Your task to perform on an android device: Empty the shopping cart on target. Add "logitech g933" to the cart on target, then select checkout. Image 0: 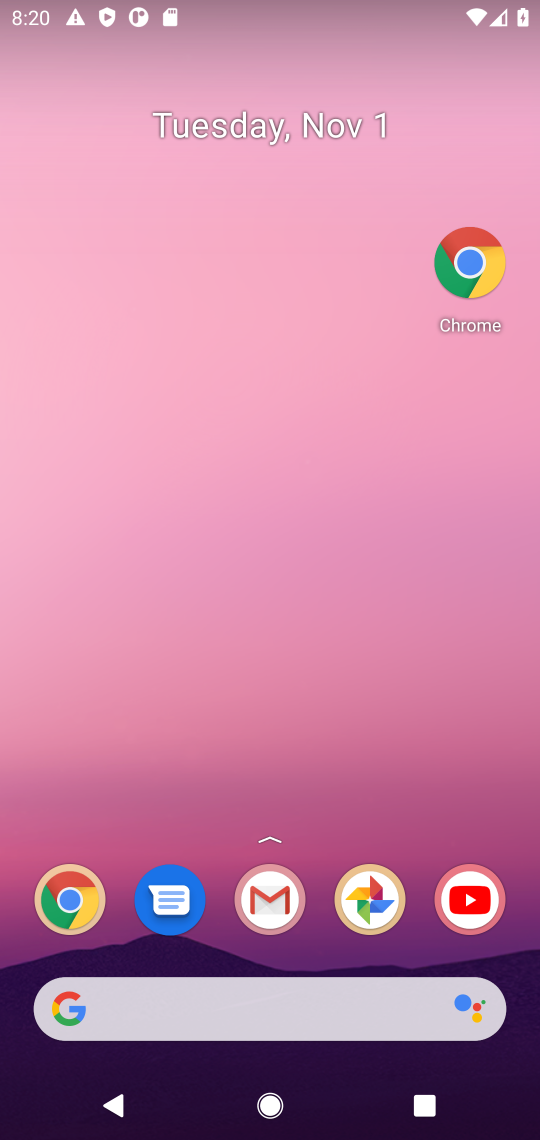
Step 0: drag from (315, 938) to (326, 123)
Your task to perform on an android device: Empty the shopping cart on target. Add "logitech g933" to the cart on target, then select checkout. Image 1: 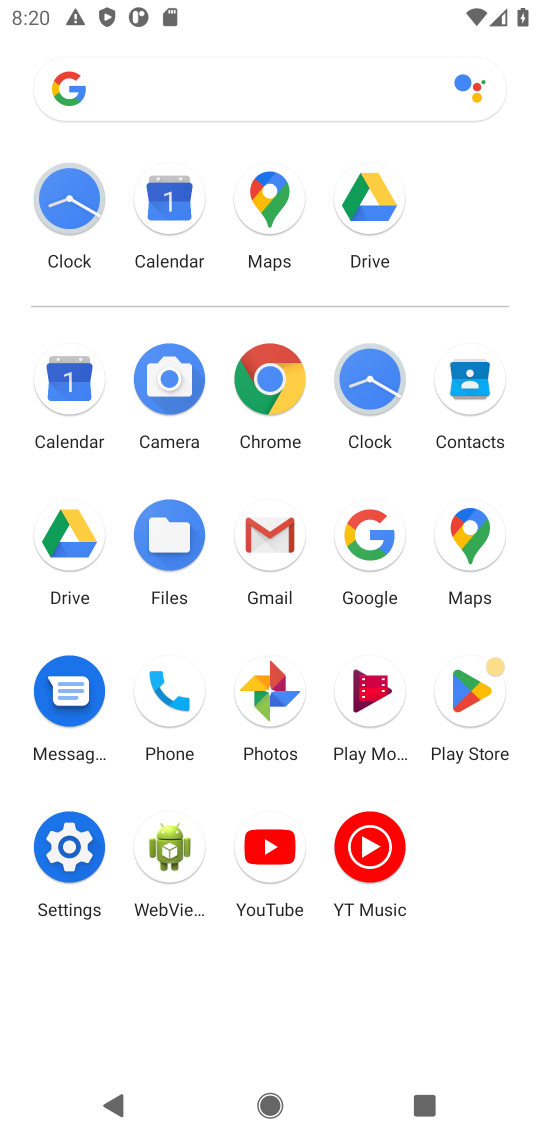
Step 1: click (268, 370)
Your task to perform on an android device: Empty the shopping cart on target. Add "logitech g933" to the cart on target, then select checkout. Image 2: 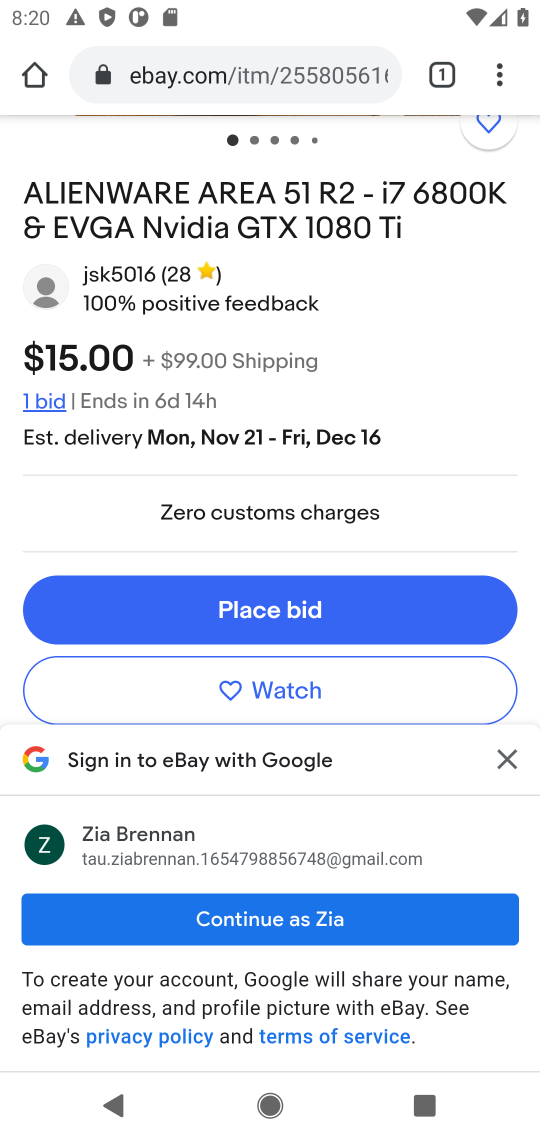
Step 2: click (335, 62)
Your task to perform on an android device: Empty the shopping cart on target. Add "logitech g933" to the cart on target, then select checkout. Image 3: 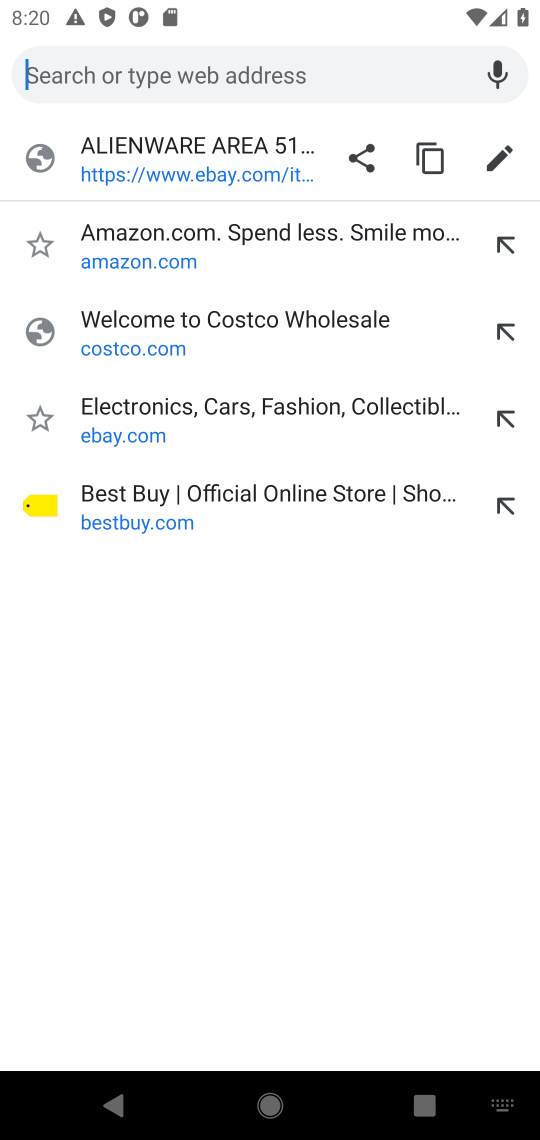
Step 3: type "target.com"
Your task to perform on an android device: Empty the shopping cart on target. Add "logitech g933" to the cart on target, then select checkout. Image 4: 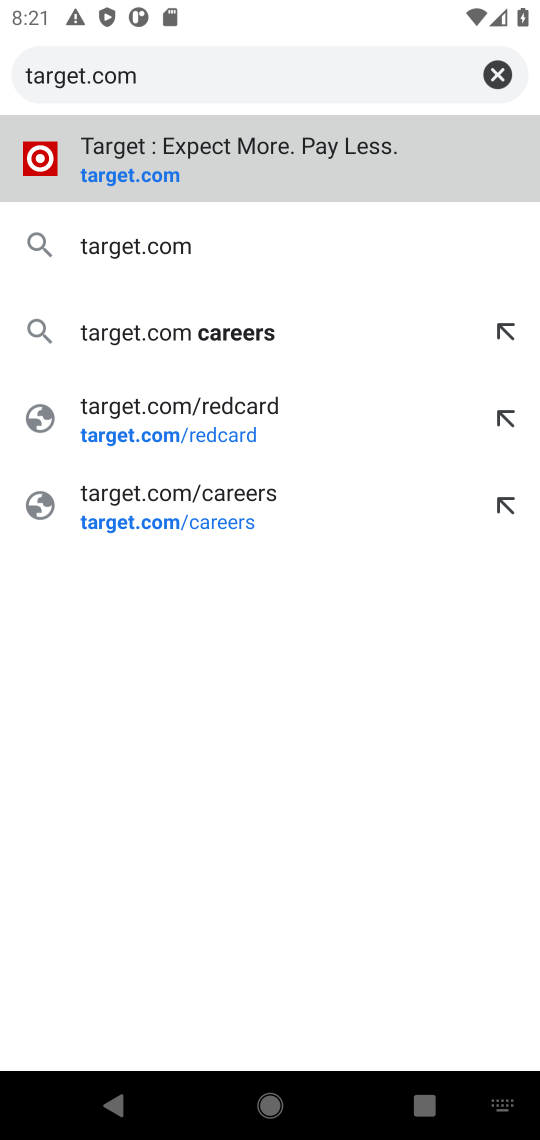
Step 4: press enter
Your task to perform on an android device: Empty the shopping cart on target. Add "logitech g933" to the cart on target, then select checkout. Image 5: 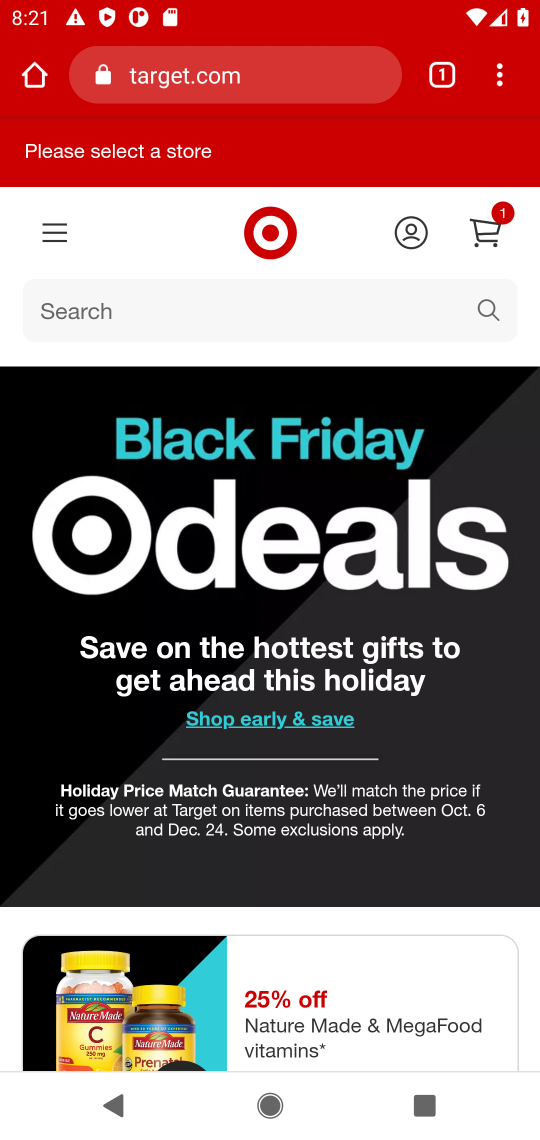
Step 5: click (497, 229)
Your task to perform on an android device: Empty the shopping cart on target. Add "logitech g933" to the cart on target, then select checkout. Image 6: 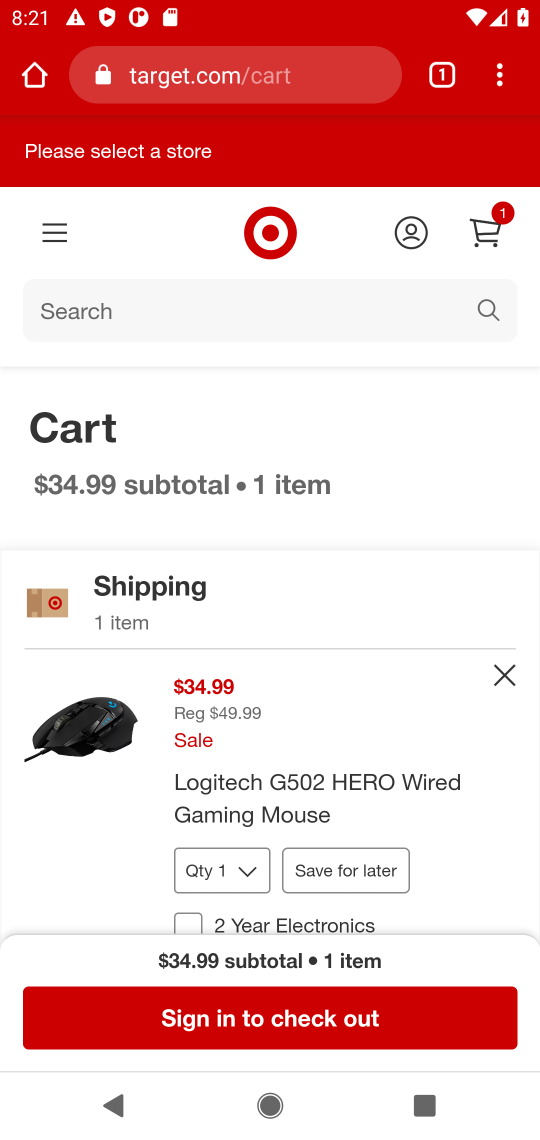
Step 6: drag from (428, 885) to (438, 379)
Your task to perform on an android device: Empty the shopping cart on target. Add "logitech g933" to the cart on target, then select checkout. Image 7: 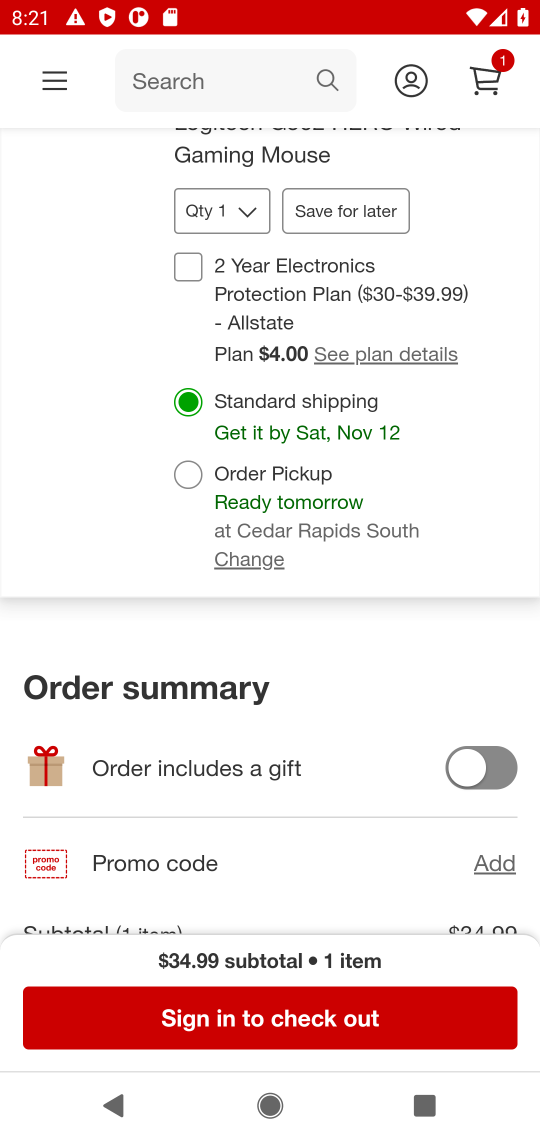
Step 7: drag from (413, 428) to (282, 860)
Your task to perform on an android device: Empty the shopping cart on target. Add "logitech g933" to the cart on target, then select checkout. Image 8: 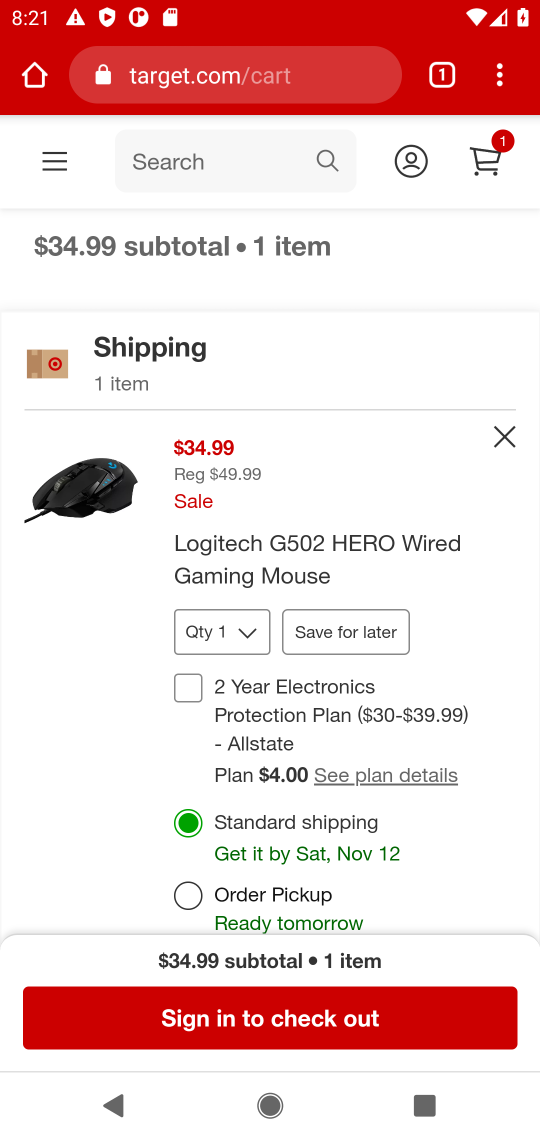
Step 8: drag from (342, 837) to (364, 717)
Your task to perform on an android device: Empty the shopping cart on target. Add "logitech g933" to the cart on target, then select checkout. Image 9: 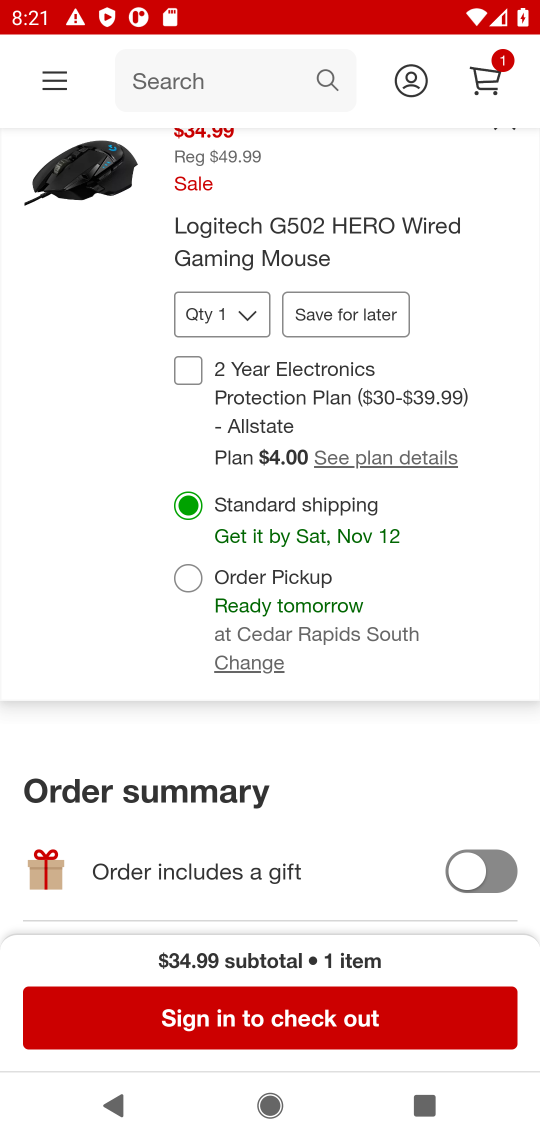
Step 9: click (213, 320)
Your task to perform on an android device: Empty the shopping cart on target. Add "logitech g933" to the cart on target, then select checkout. Image 10: 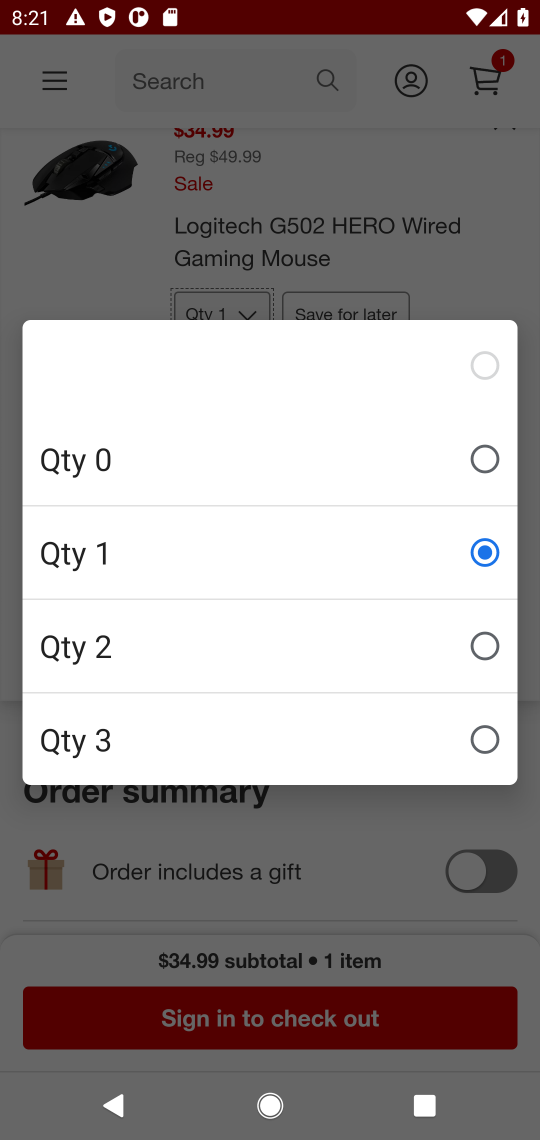
Step 10: click (192, 451)
Your task to perform on an android device: Empty the shopping cart on target. Add "logitech g933" to the cart on target, then select checkout. Image 11: 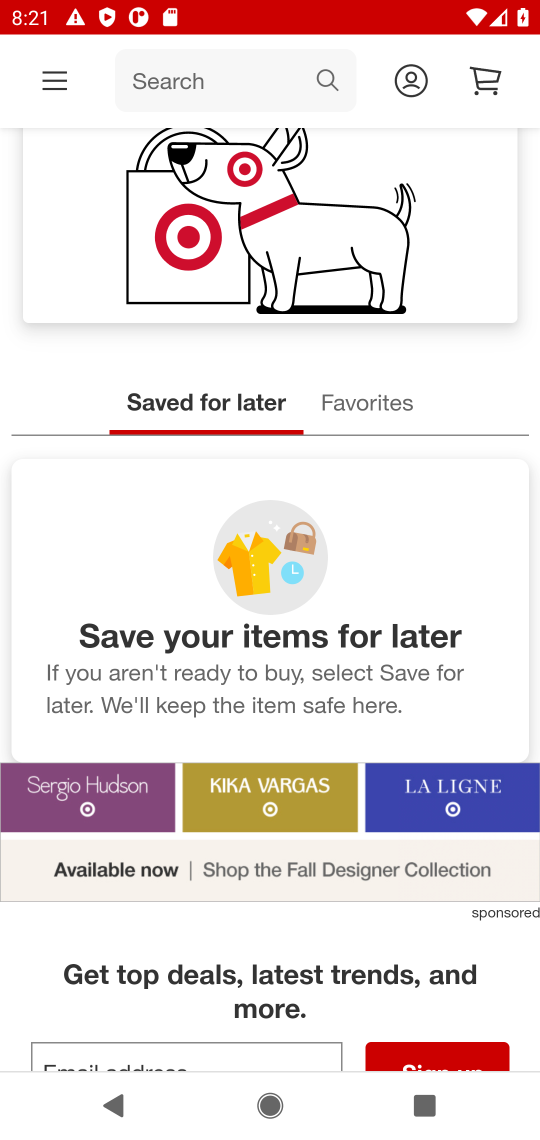
Step 11: click (325, 84)
Your task to perform on an android device: Empty the shopping cart on target. Add "logitech g933" to the cart on target, then select checkout. Image 12: 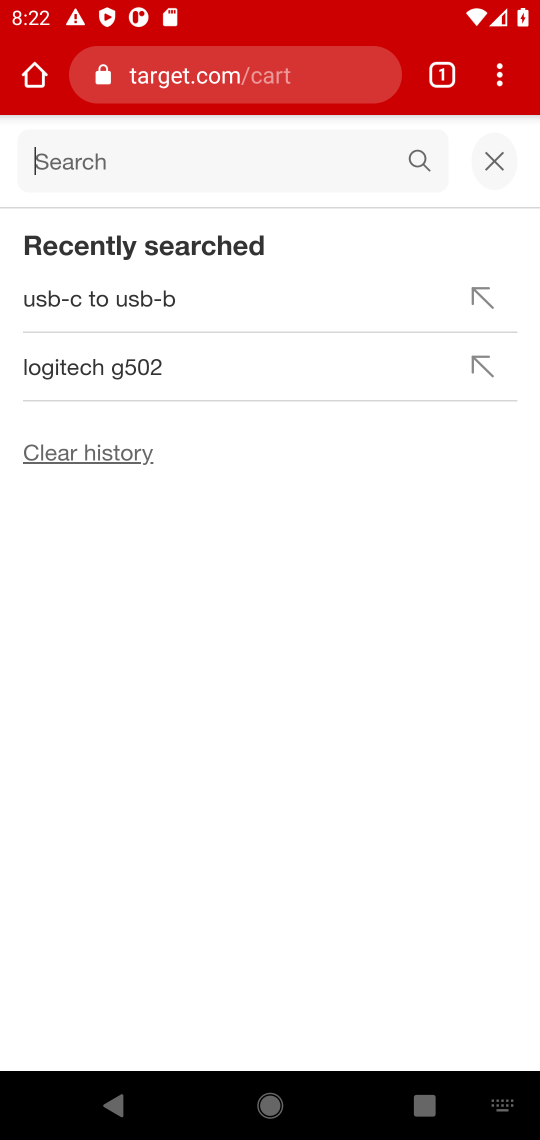
Step 12: type "logtitech g933"
Your task to perform on an android device: Empty the shopping cart on target. Add "logitech g933" to the cart on target, then select checkout. Image 13: 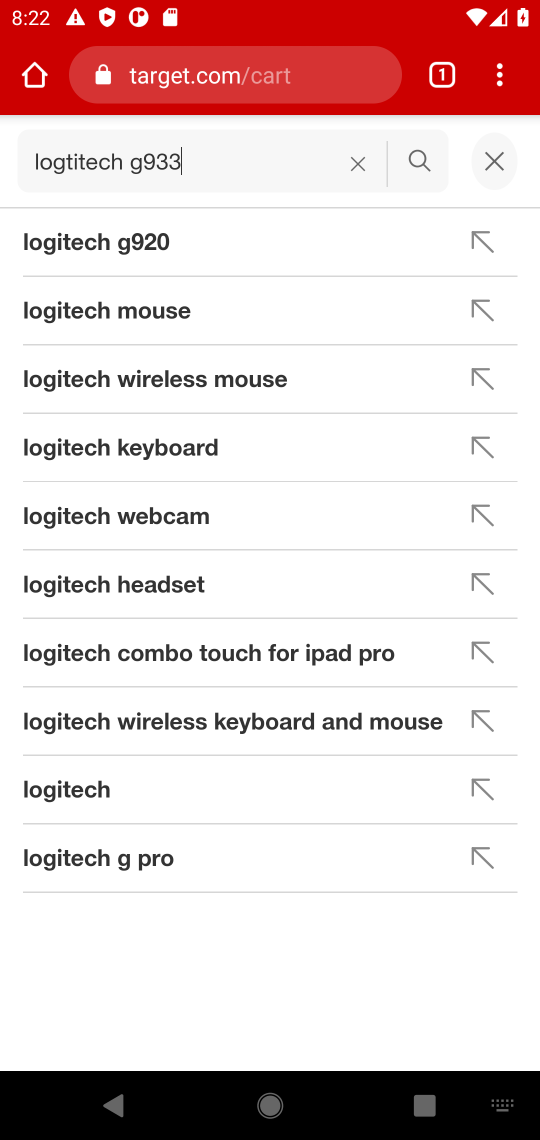
Step 13: press enter
Your task to perform on an android device: Empty the shopping cart on target. Add "logitech g933" to the cart on target, then select checkout. Image 14: 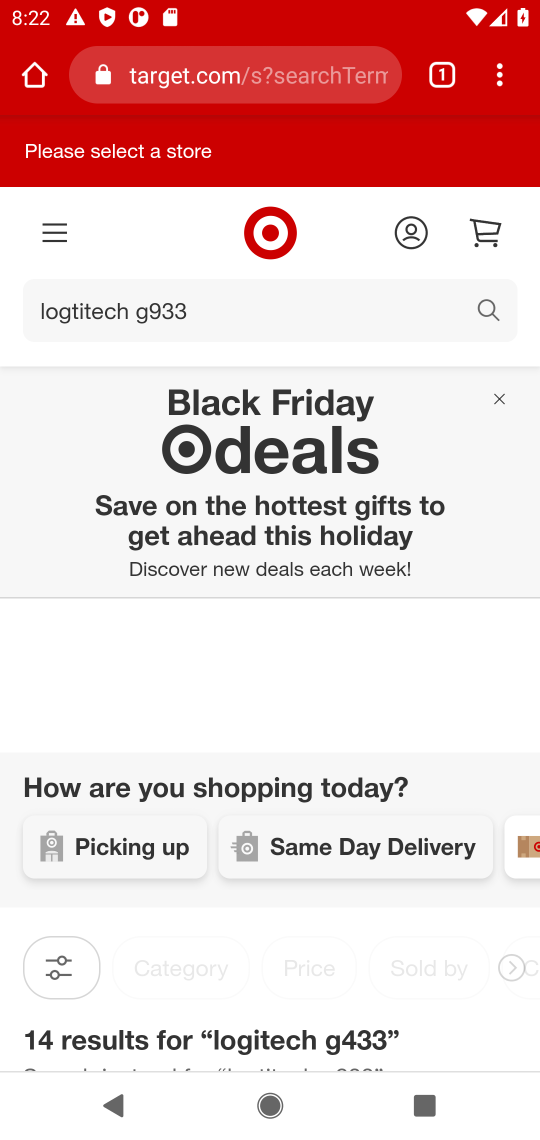
Step 14: drag from (316, 948) to (305, 226)
Your task to perform on an android device: Empty the shopping cart on target. Add "logitech g933" to the cart on target, then select checkout. Image 15: 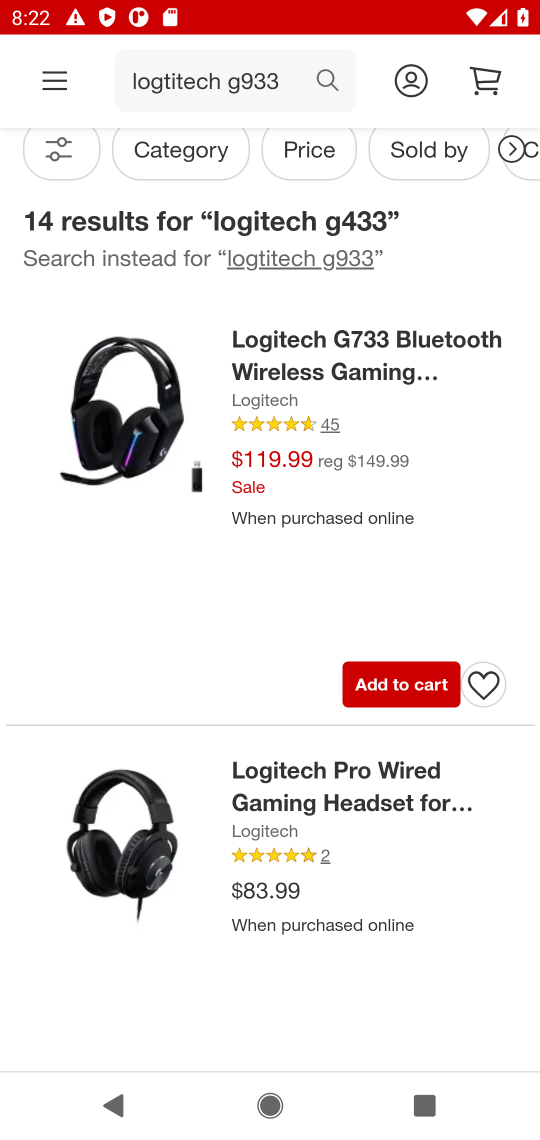
Step 15: click (382, 694)
Your task to perform on an android device: Empty the shopping cart on target. Add "logitech g933" to the cart on target, then select checkout. Image 16: 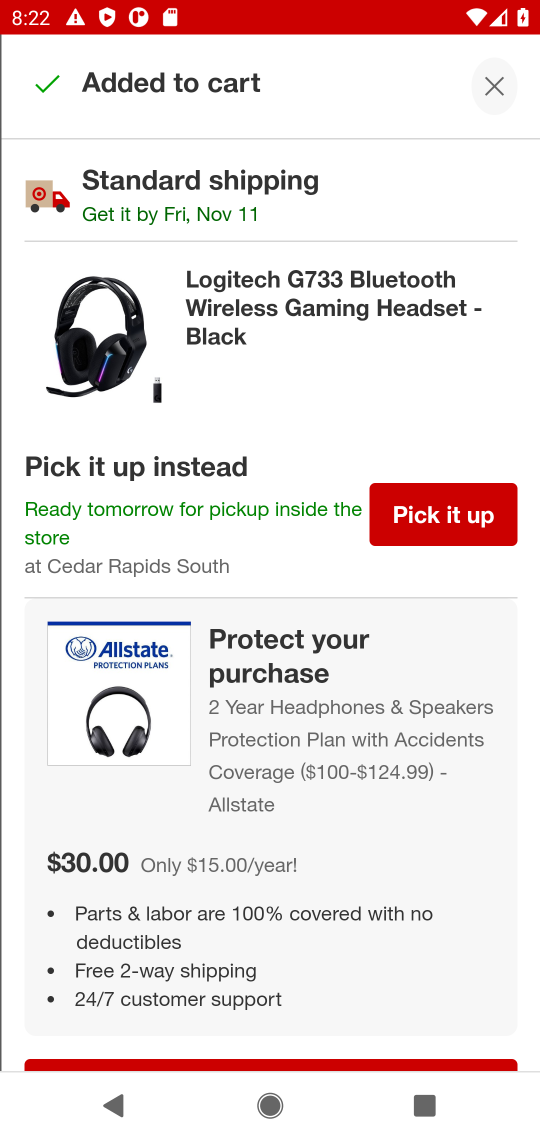
Step 16: drag from (241, 920) to (235, 317)
Your task to perform on an android device: Empty the shopping cart on target. Add "logitech g933" to the cart on target, then select checkout. Image 17: 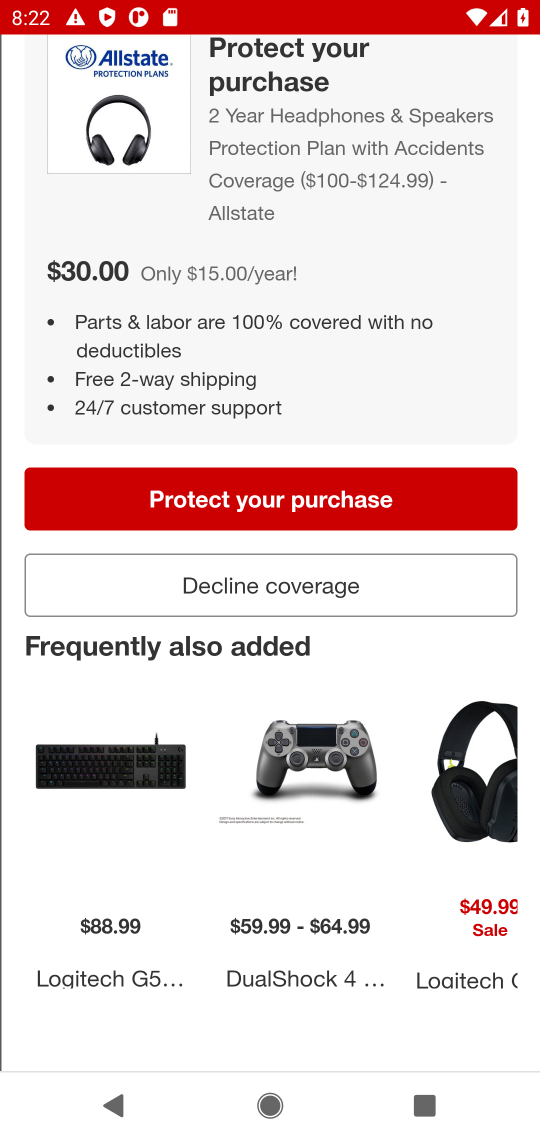
Step 17: drag from (292, 846) to (352, 78)
Your task to perform on an android device: Empty the shopping cart on target. Add "logitech g933" to the cart on target, then select checkout. Image 18: 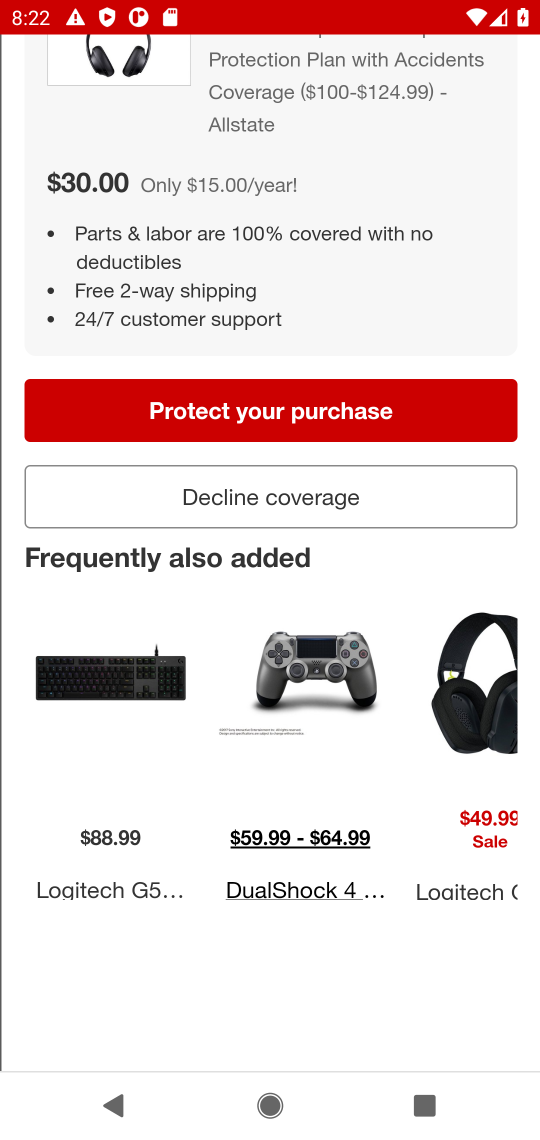
Step 18: drag from (325, 286) to (340, 934)
Your task to perform on an android device: Empty the shopping cart on target. Add "logitech g933" to the cart on target, then select checkout. Image 19: 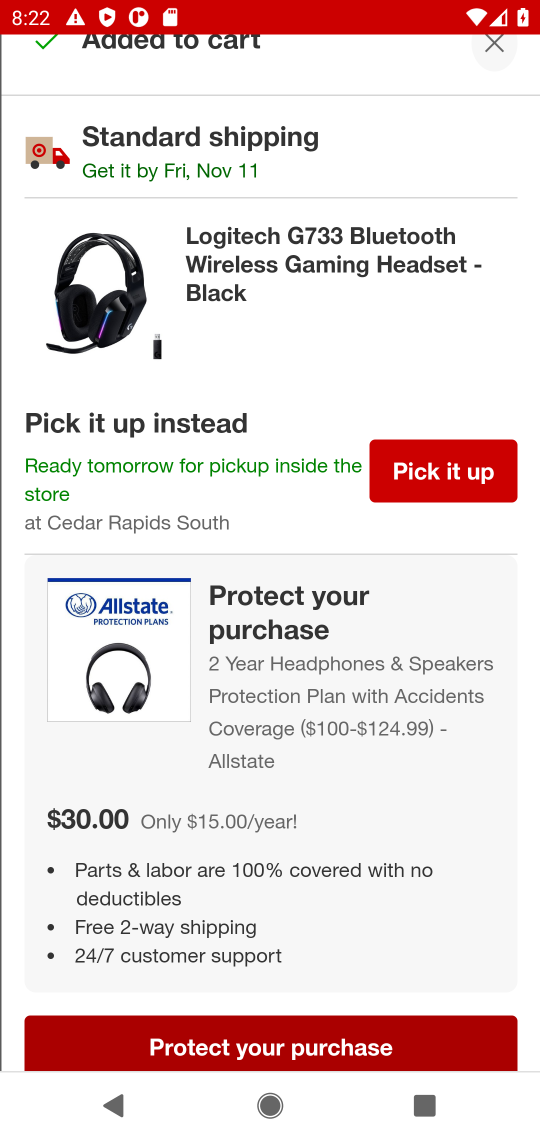
Step 19: drag from (256, 339) to (230, 1028)
Your task to perform on an android device: Empty the shopping cart on target. Add "logitech g933" to the cart on target, then select checkout. Image 20: 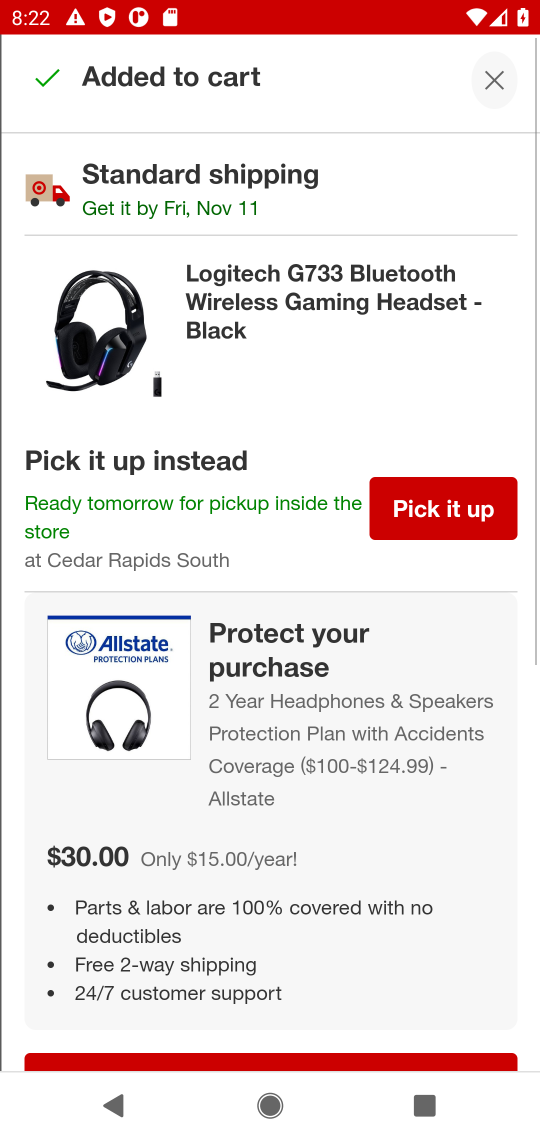
Step 20: click (286, 372)
Your task to perform on an android device: Empty the shopping cart on target. Add "logitech g933" to the cart on target, then select checkout. Image 21: 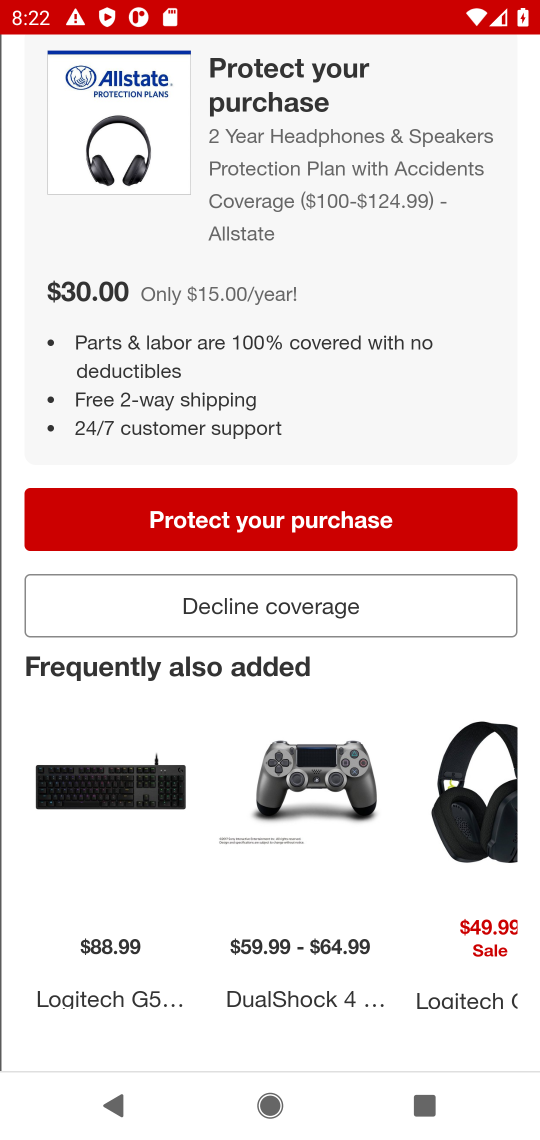
Step 21: click (361, 609)
Your task to perform on an android device: Empty the shopping cart on target. Add "logitech g933" to the cart on target, then select checkout. Image 22: 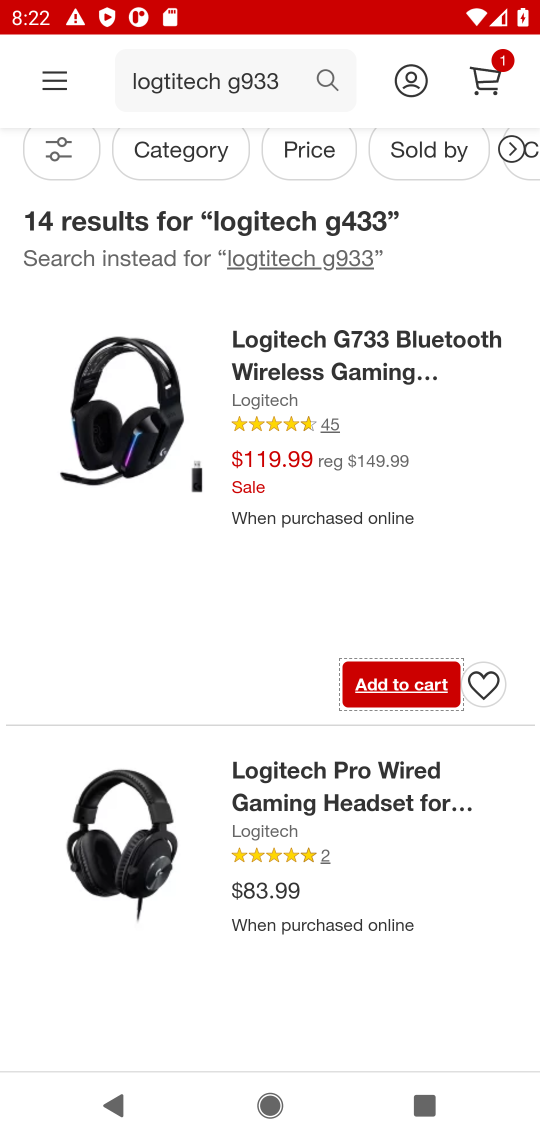
Step 22: click (489, 79)
Your task to perform on an android device: Empty the shopping cart on target. Add "logitech g933" to the cart on target, then select checkout. Image 23: 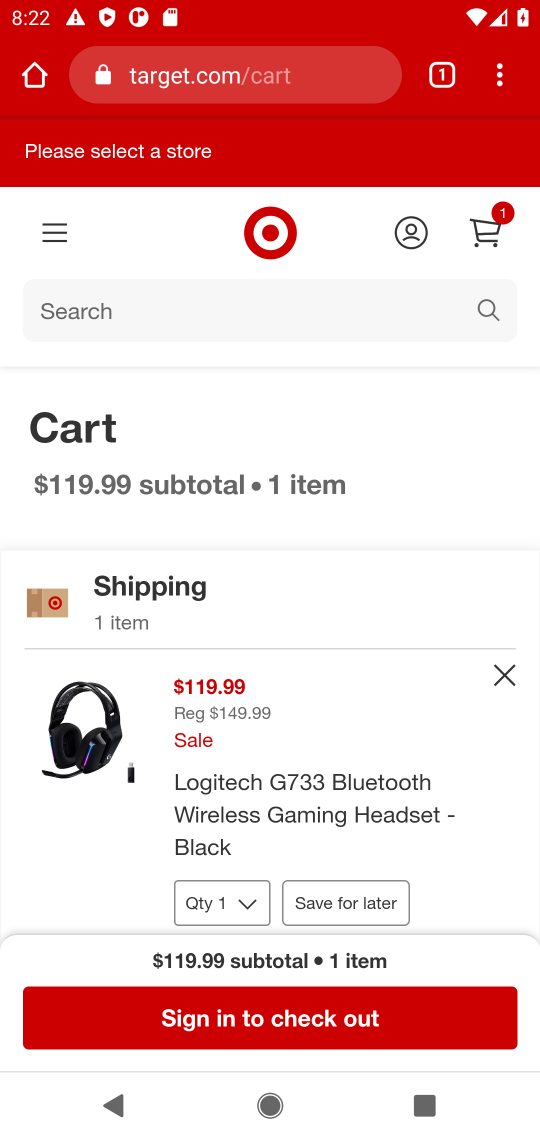
Step 23: click (310, 1028)
Your task to perform on an android device: Empty the shopping cart on target. Add "logitech g933" to the cart on target, then select checkout. Image 24: 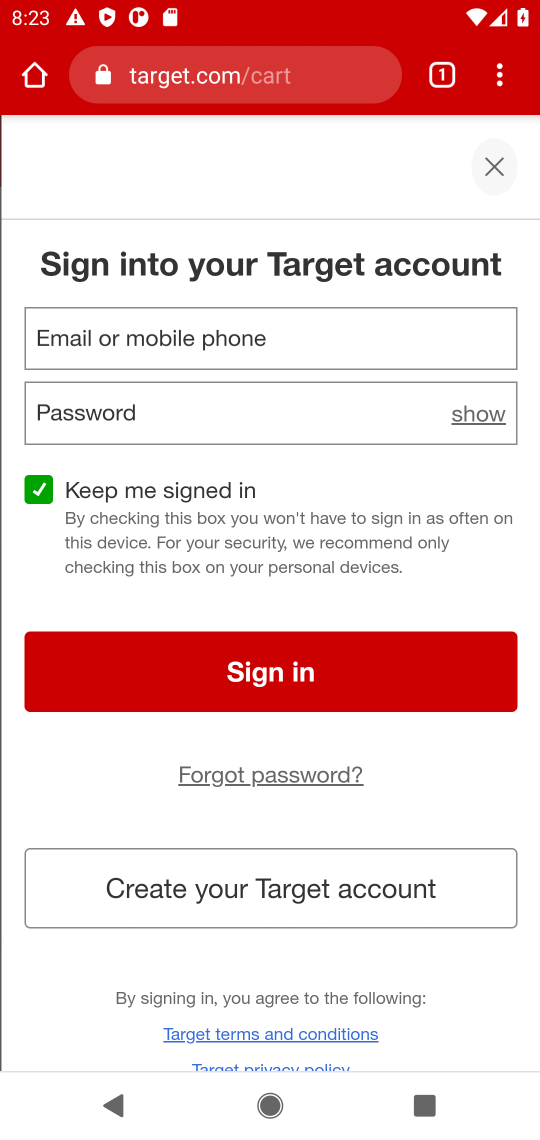
Step 24: task complete